Your task to perform on an android device: open app "Booking.com: Hotels and more" (install if not already installed) Image 0: 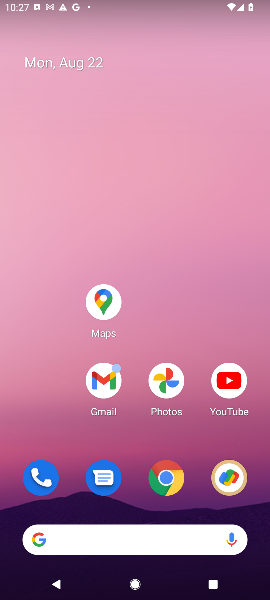
Step 0: drag from (131, 495) to (143, 36)
Your task to perform on an android device: open app "Booking.com: Hotels and more" (install if not already installed) Image 1: 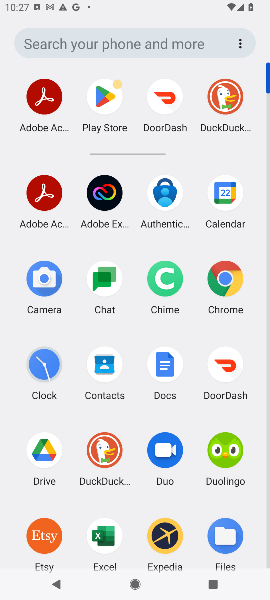
Step 1: click (116, 91)
Your task to perform on an android device: open app "Booking.com: Hotels and more" (install if not already installed) Image 2: 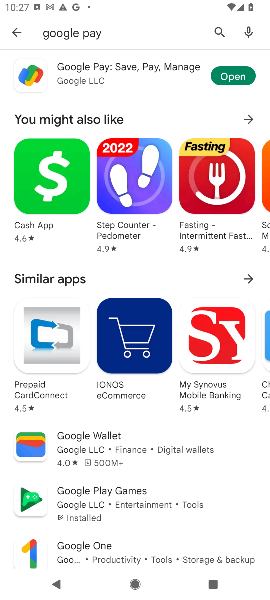
Step 2: click (216, 35)
Your task to perform on an android device: open app "Booking.com: Hotels and more" (install if not already installed) Image 3: 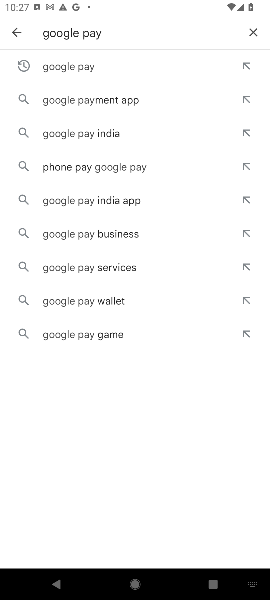
Step 3: click (242, 35)
Your task to perform on an android device: open app "Booking.com: Hotels and more" (install if not already installed) Image 4: 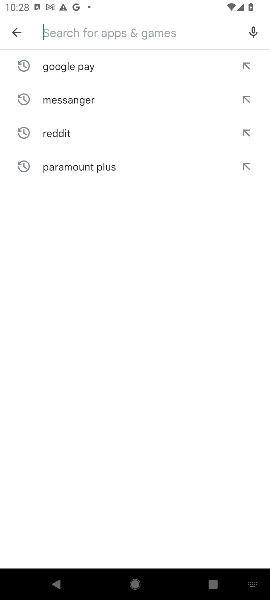
Step 4: type "booking"
Your task to perform on an android device: open app "Booking.com: Hotels and more" (install if not already installed) Image 5: 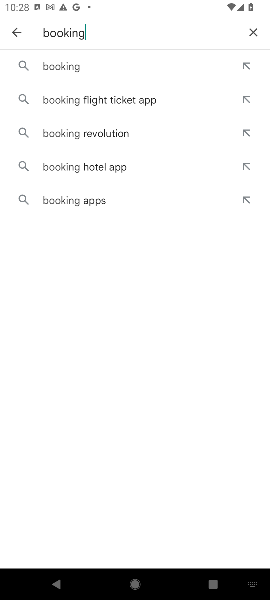
Step 5: click (106, 58)
Your task to perform on an android device: open app "Booking.com: Hotels and more" (install if not already installed) Image 6: 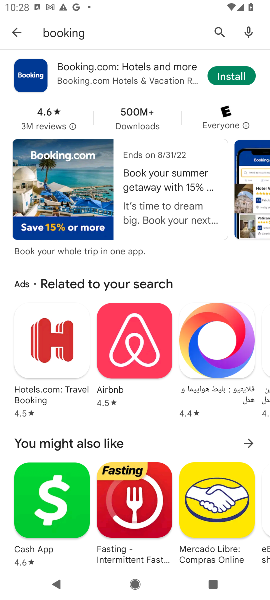
Step 6: click (232, 83)
Your task to perform on an android device: open app "Booking.com: Hotels and more" (install if not already installed) Image 7: 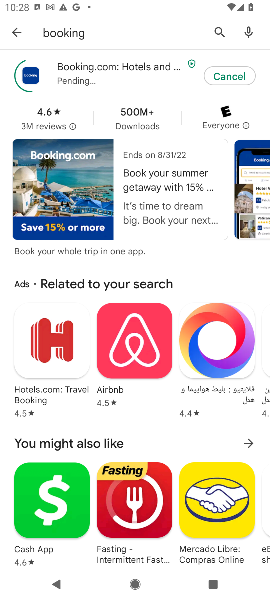
Step 7: task complete